Your task to perform on an android device: See recent photos Image 0: 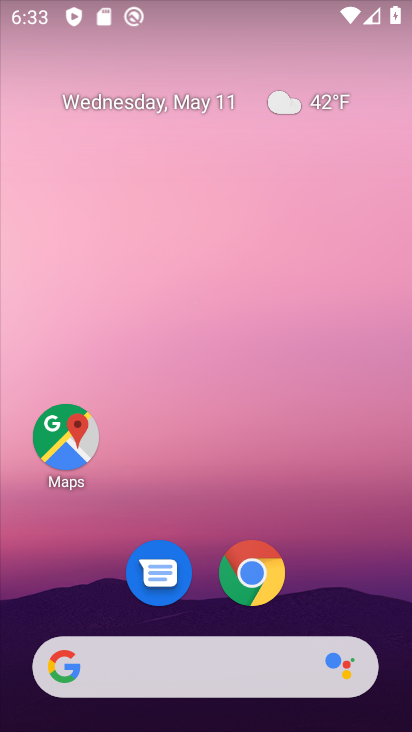
Step 0: drag from (312, 460) to (349, 143)
Your task to perform on an android device: See recent photos Image 1: 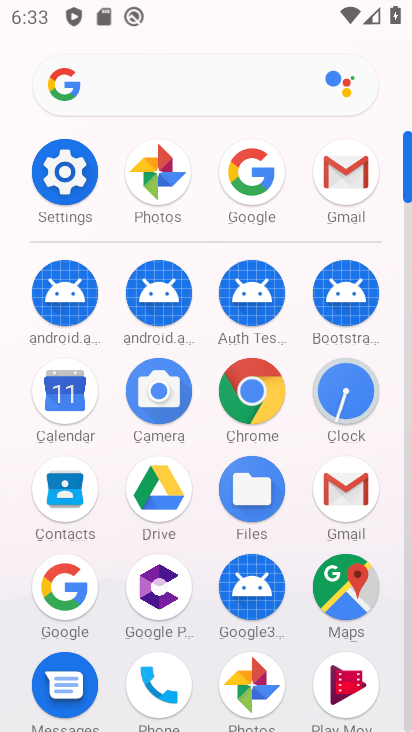
Step 1: click (166, 179)
Your task to perform on an android device: See recent photos Image 2: 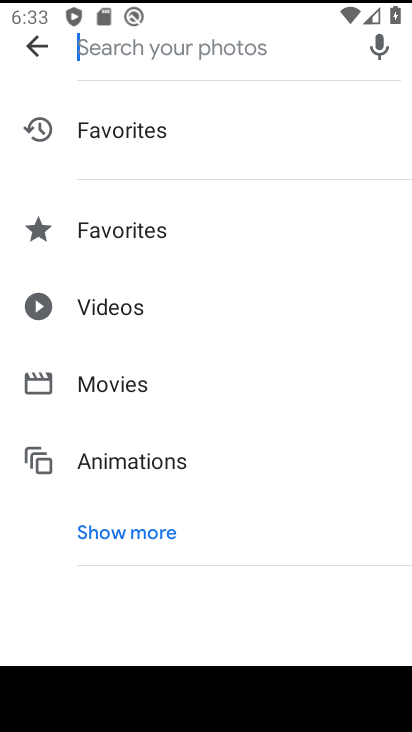
Step 2: click (41, 49)
Your task to perform on an android device: See recent photos Image 3: 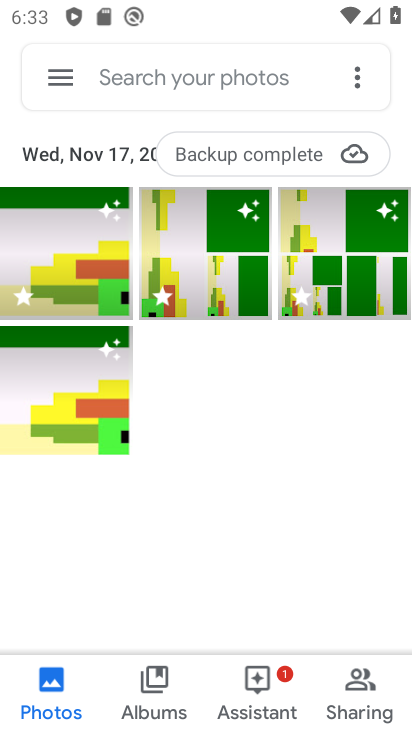
Step 3: task complete